Your task to perform on an android device: Open Amazon Image 0: 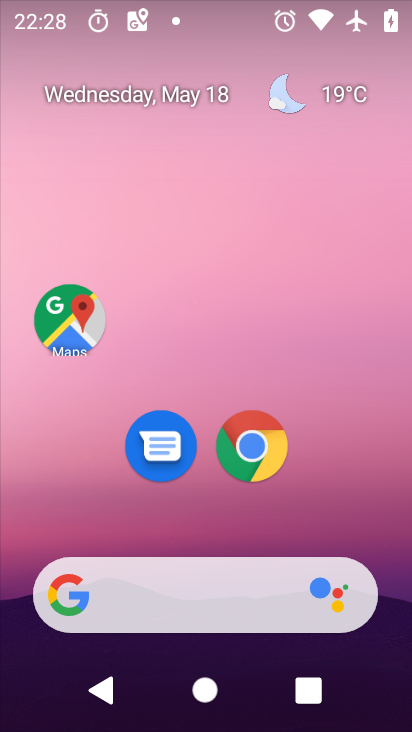
Step 0: press home button
Your task to perform on an android device: Open Amazon Image 1: 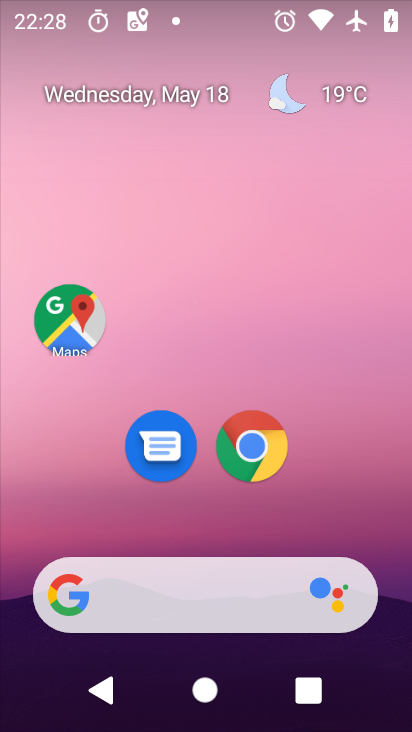
Step 1: click (256, 465)
Your task to perform on an android device: Open Amazon Image 2: 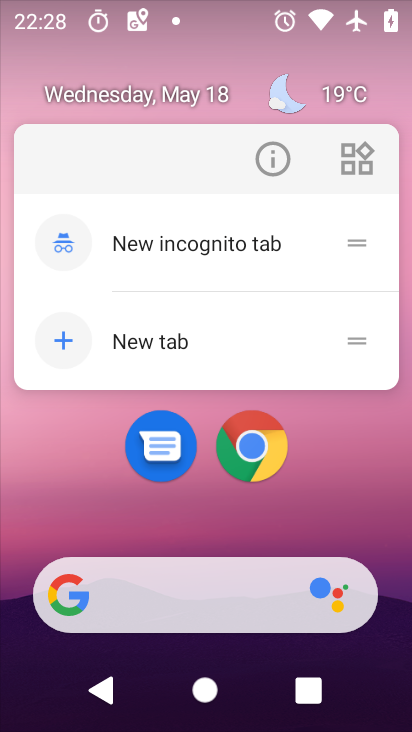
Step 2: click (253, 421)
Your task to perform on an android device: Open Amazon Image 3: 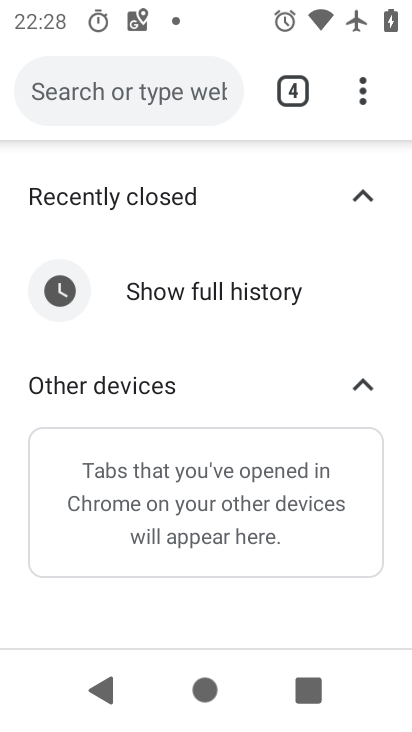
Step 3: drag from (361, 100) to (156, 175)
Your task to perform on an android device: Open Amazon Image 4: 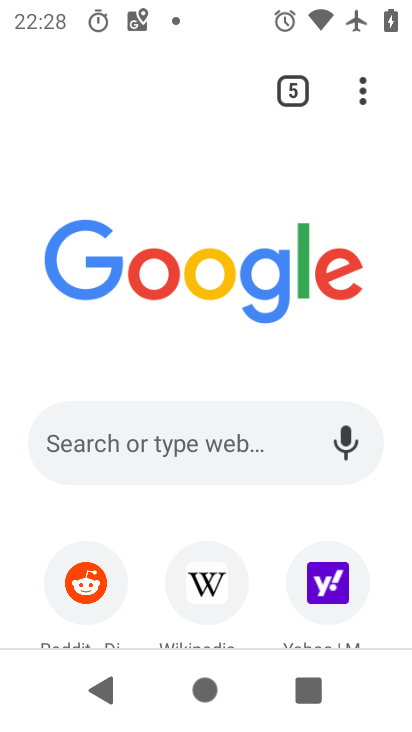
Step 4: drag from (215, 523) to (340, 142)
Your task to perform on an android device: Open Amazon Image 5: 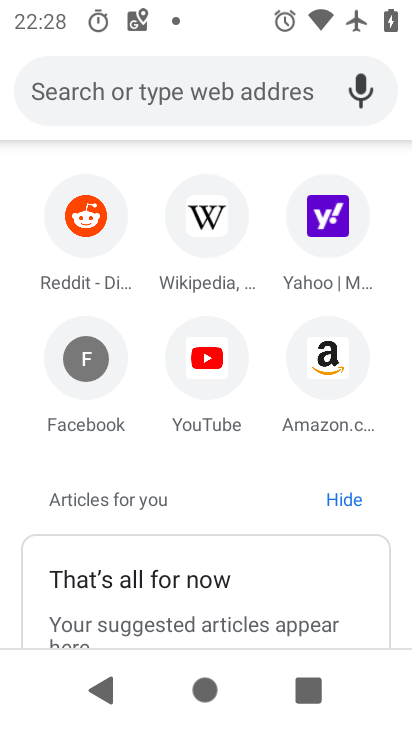
Step 5: click (325, 372)
Your task to perform on an android device: Open Amazon Image 6: 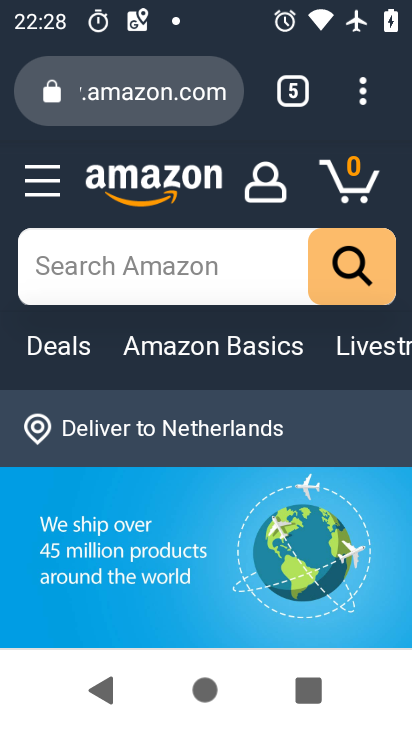
Step 6: task complete